Your task to perform on an android device: toggle priority inbox in the gmail app Image 0: 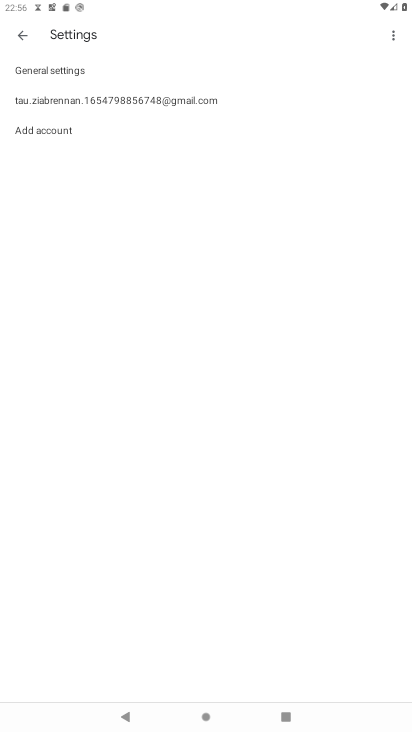
Step 0: press home button
Your task to perform on an android device: toggle priority inbox in the gmail app Image 1: 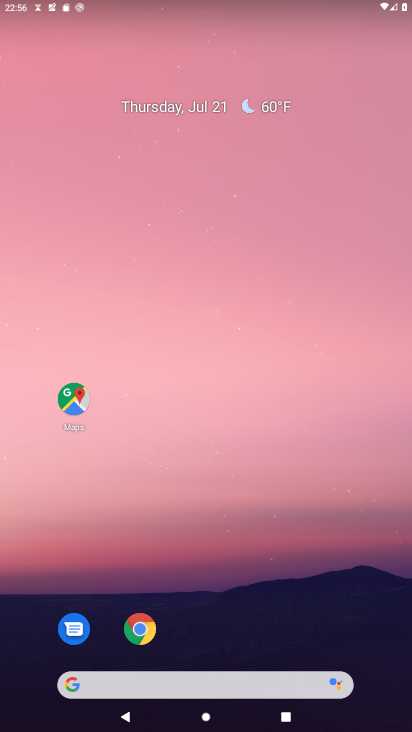
Step 1: drag from (276, 670) to (267, 353)
Your task to perform on an android device: toggle priority inbox in the gmail app Image 2: 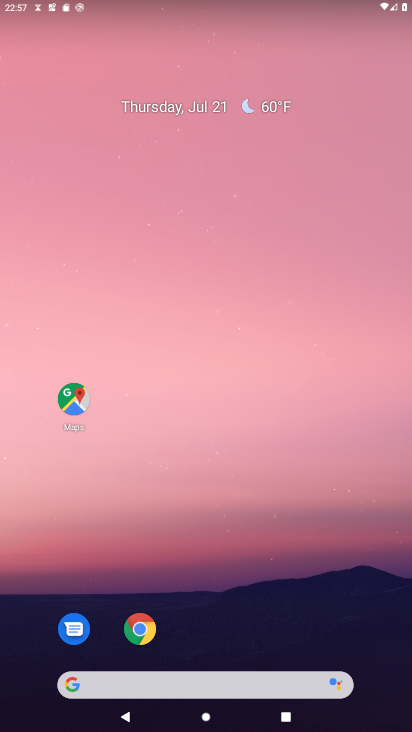
Step 2: drag from (263, 483) to (261, 150)
Your task to perform on an android device: toggle priority inbox in the gmail app Image 3: 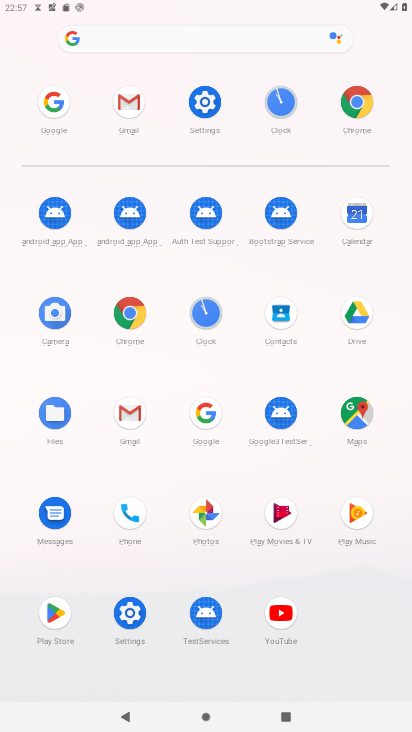
Step 3: click (121, 101)
Your task to perform on an android device: toggle priority inbox in the gmail app Image 4: 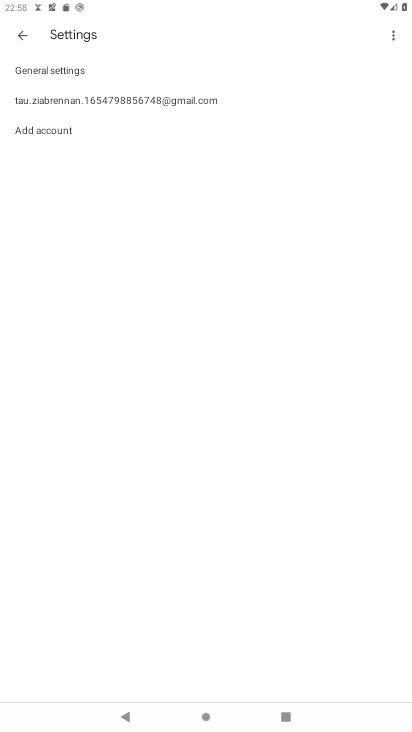
Step 4: click (42, 72)
Your task to perform on an android device: toggle priority inbox in the gmail app Image 5: 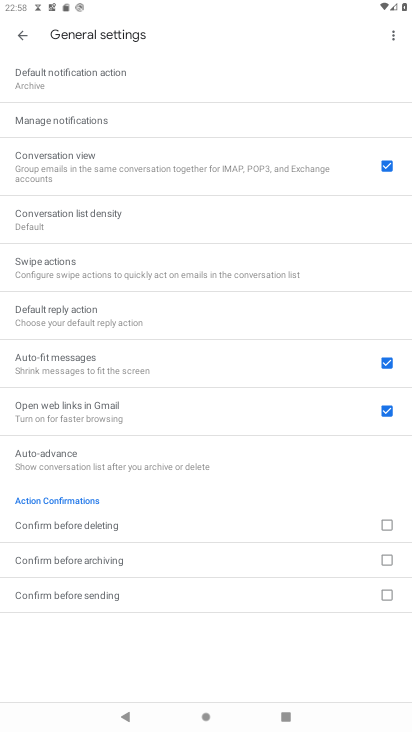
Step 5: click (10, 27)
Your task to perform on an android device: toggle priority inbox in the gmail app Image 6: 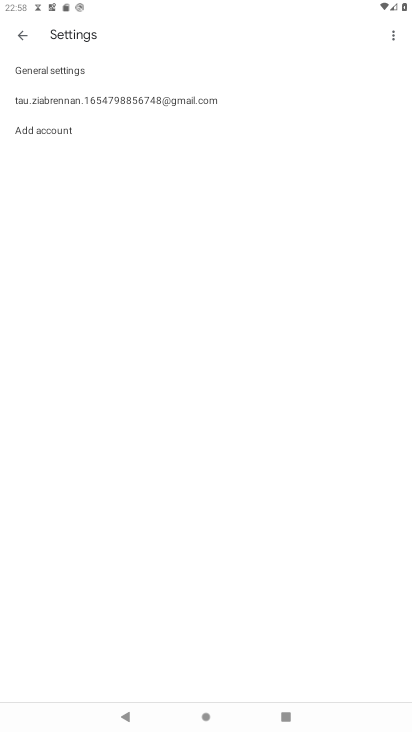
Step 6: click (56, 89)
Your task to perform on an android device: toggle priority inbox in the gmail app Image 7: 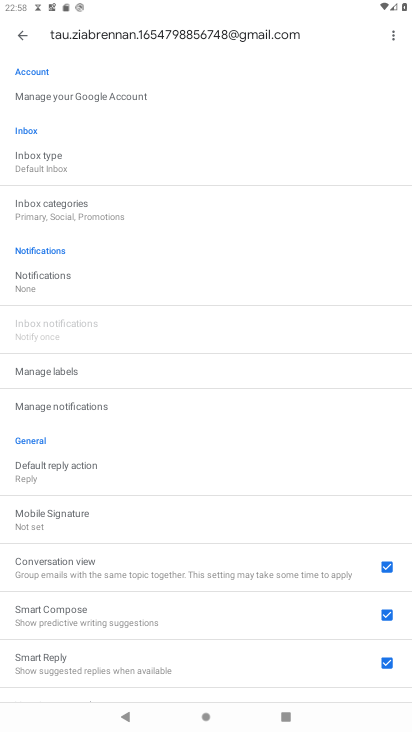
Step 7: click (63, 159)
Your task to perform on an android device: toggle priority inbox in the gmail app Image 8: 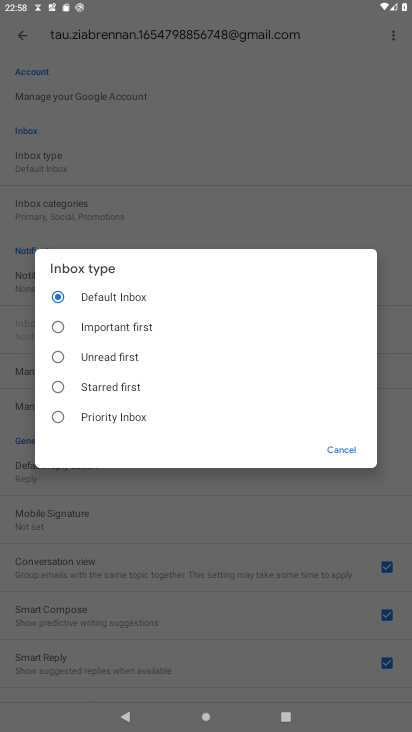
Step 8: click (115, 418)
Your task to perform on an android device: toggle priority inbox in the gmail app Image 9: 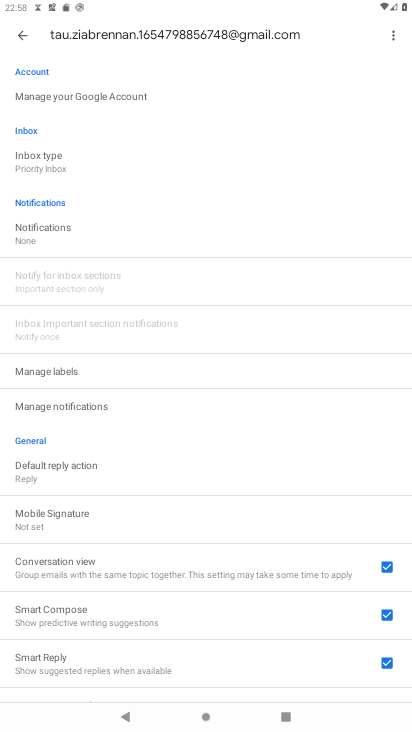
Step 9: task complete